Your task to perform on an android device: toggle priority inbox in the gmail app Image 0: 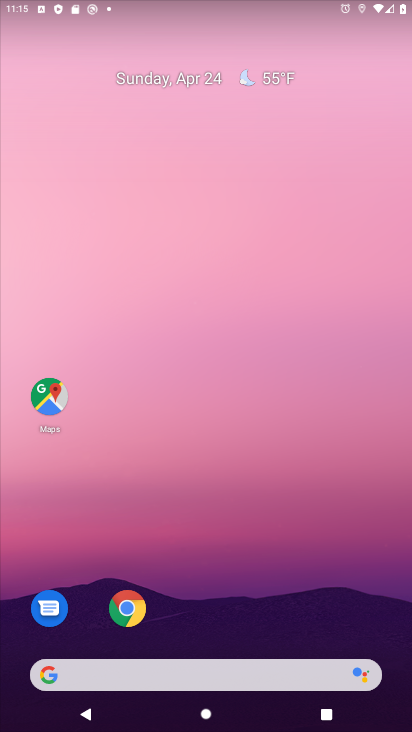
Step 0: drag from (350, 563) to (368, 51)
Your task to perform on an android device: toggle priority inbox in the gmail app Image 1: 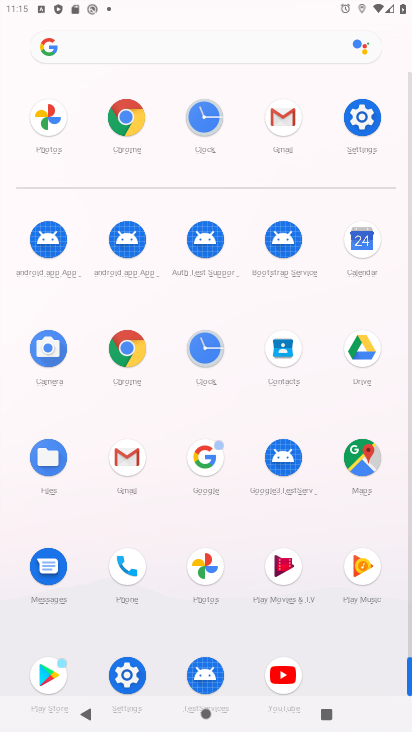
Step 1: click (124, 454)
Your task to perform on an android device: toggle priority inbox in the gmail app Image 2: 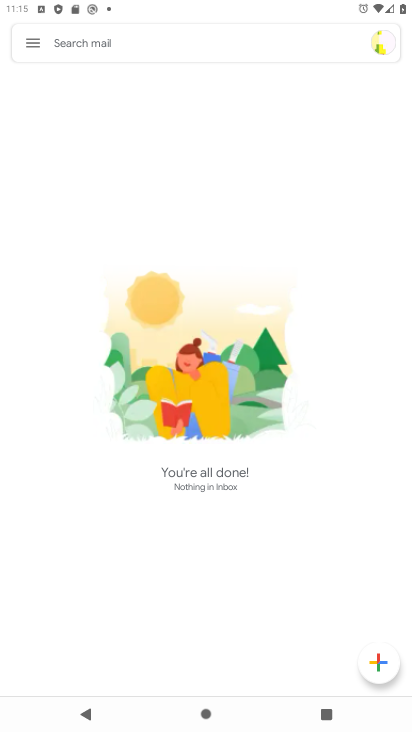
Step 2: click (27, 39)
Your task to perform on an android device: toggle priority inbox in the gmail app Image 3: 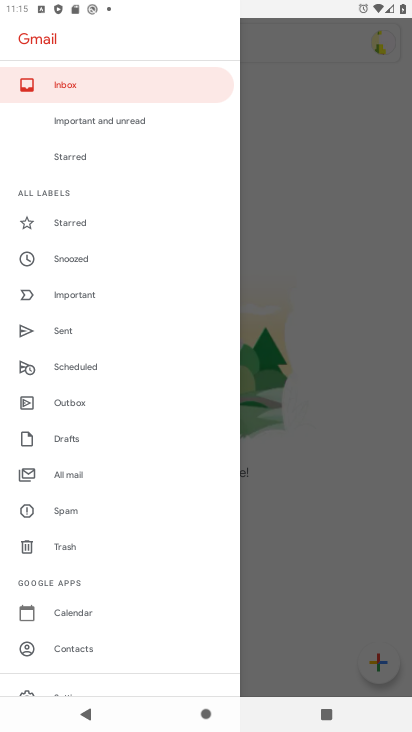
Step 3: drag from (138, 631) to (176, 175)
Your task to perform on an android device: toggle priority inbox in the gmail app Image 4: 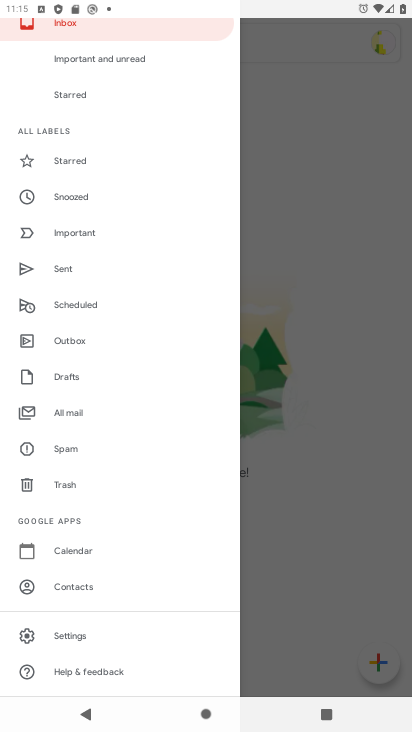
Step 4: click (61, 635)
Your task to perform on an android device: toggle priority inbox in the gmail app Image 5: 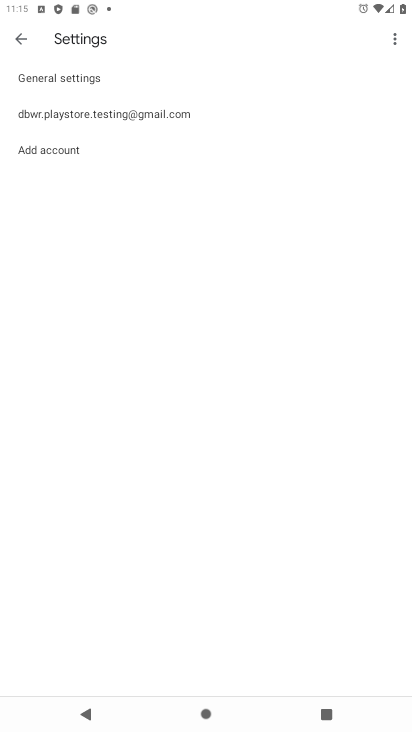
Step 5: click (112, 116)
Your task to perform on an android device: toggle priority inbox in the gmail app Image 6: 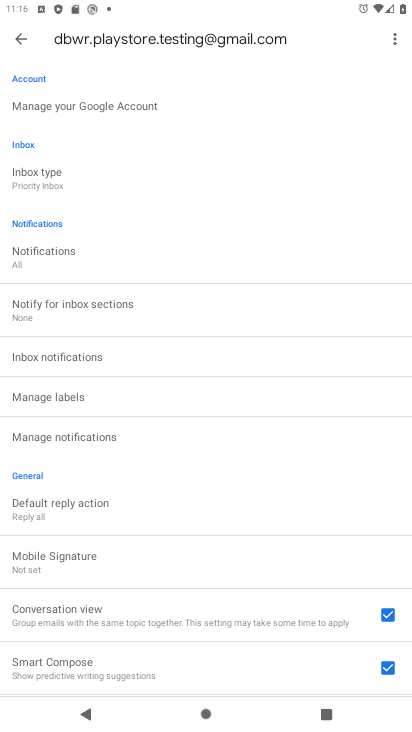
Step 6: drag from (158, 585) to (172, 253)
Your task to perform on an android device: toggle priority inbox in the gmail app Image 7: 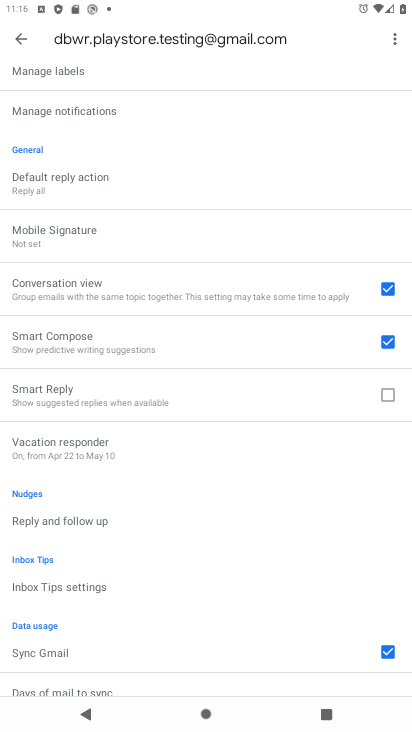
Step 7: drag from (192, 531) to (234, 254)
Your task to perform on an android device: toggle priority inbox in the gmail app Image 8: 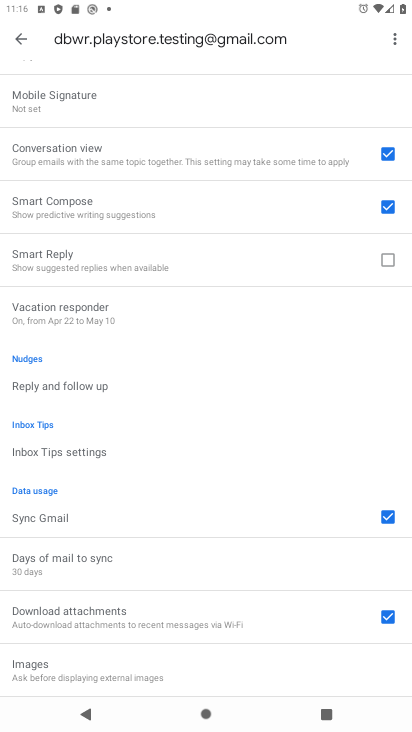
Step 8: drag from (249, 535) to (229, 220)
Your task to perform on an android device: toggle priority inbox in the gmail app Image 9: 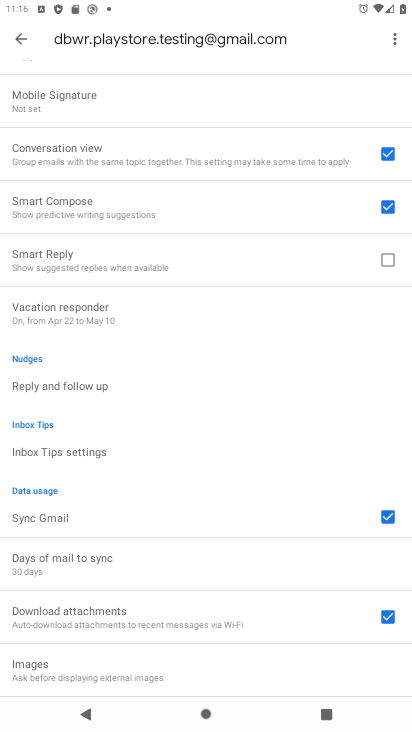
Step 9: drag from (246, 608) to (211, 706)
Your task to perform on an android device: toggle priority inbox in the gmail app Image 10: 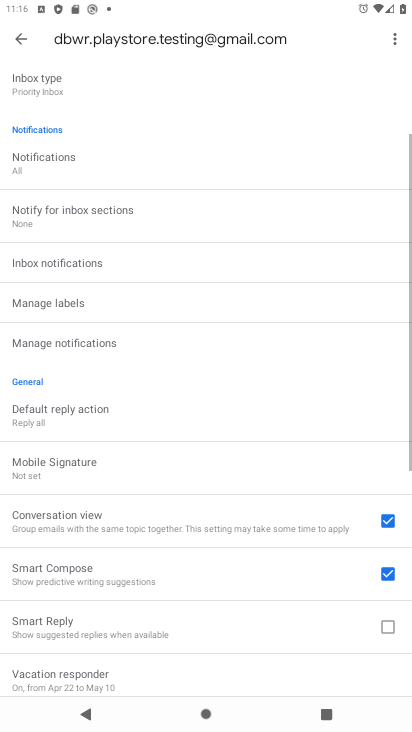
Step 10: drag from (243, 373) to (236, 589)
Your task to perform on an android device: toggle priority inbox in the gmail app Image 11: 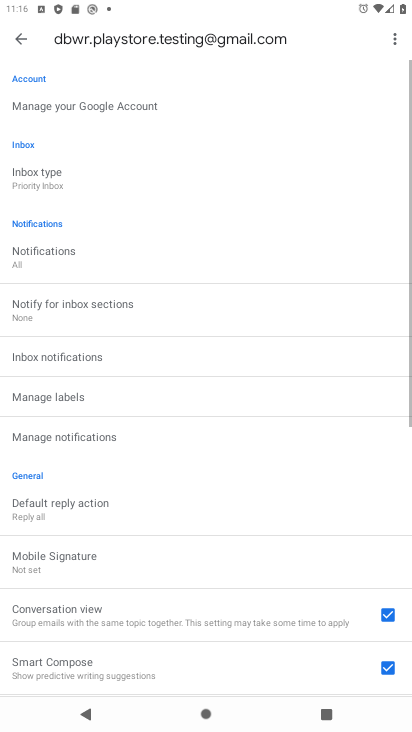
Step 11: drag from (256, 328) to (233, 510)
Your task to perform on an android device: toggle priority inbox in the gmail app Image 12: 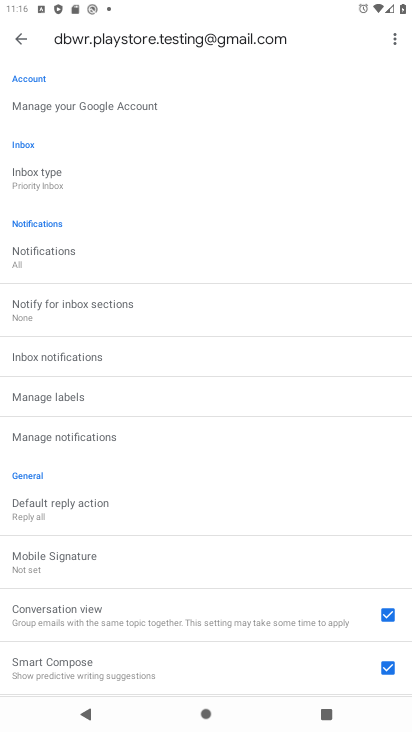
Step 12: click (35, 169)
Your task to perform on an android device: toggle priority inbox in the gmail app Image 13: 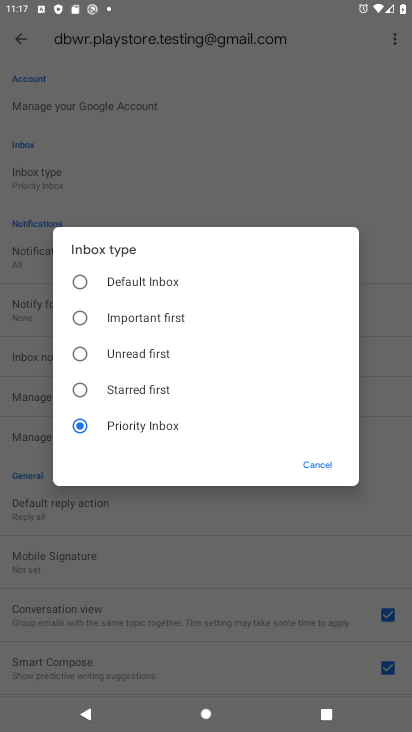
Step 13: click (76, 278)
Your task to perform on an android device: toggle priority inbox in the gmail app Image 14: 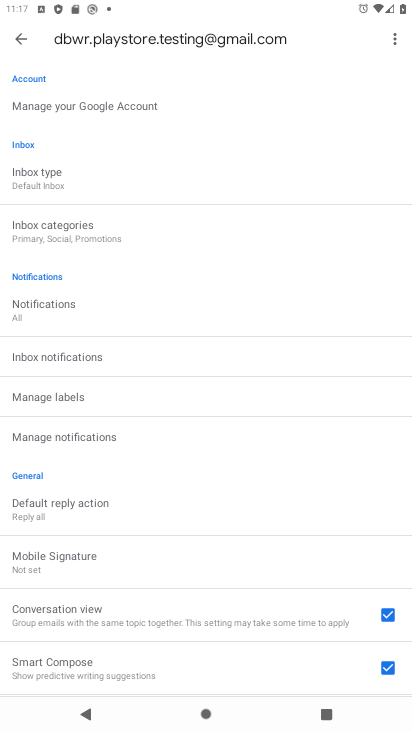
Step 14: task complete